Your task to perform on an android device: What is the news today? Image 0: 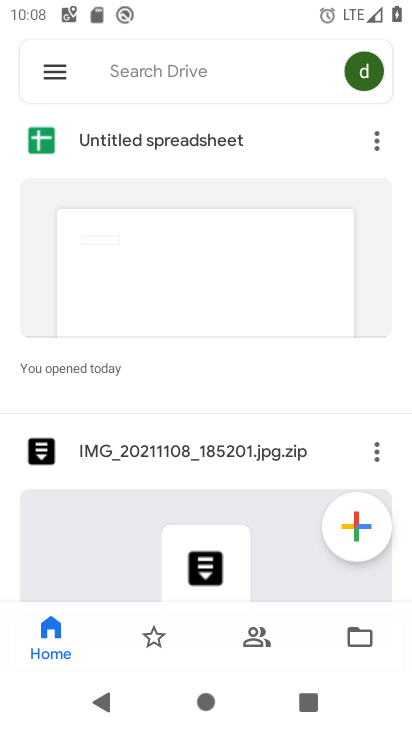
Step 0: press home button
Your task to perform on an android device: What is the news today? Image 1: 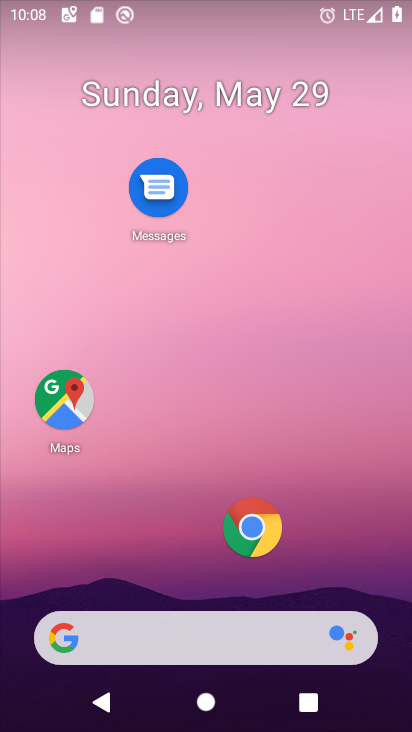
Step 1: task complete